Your task to perform on an android device: turn notification dots on Image 0: 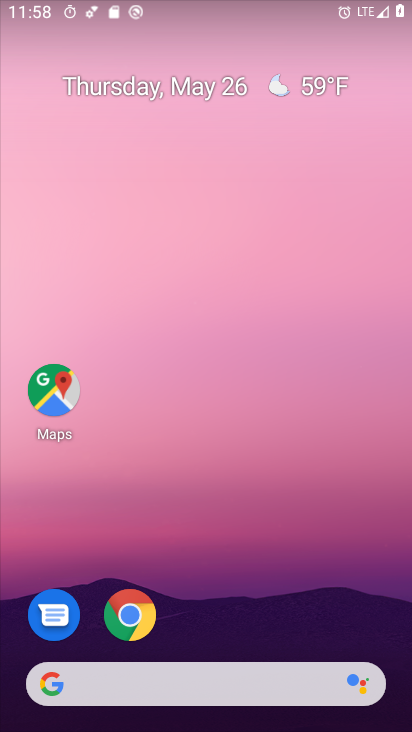
Step 0: drag from (252, 688) to (235, 21)
Your task to perform on an android device: turn notification dots on Image 1: 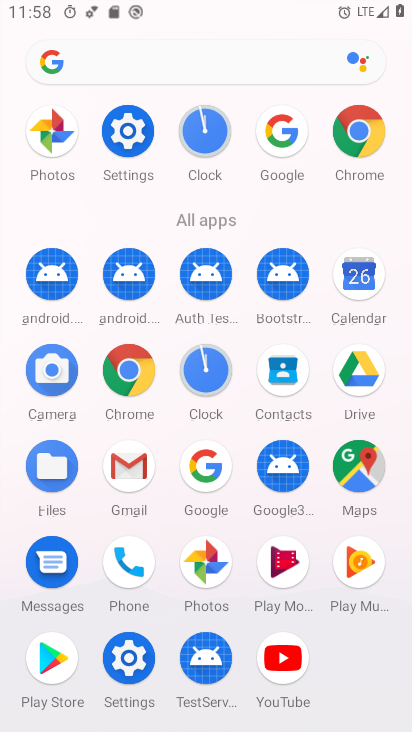
Step 1: click (118, 133)
Your task to perform on an android device: turn notification dots on Image 2: 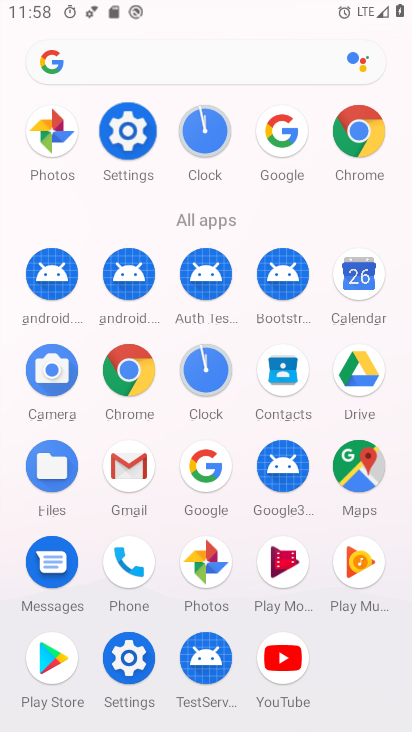
Step 2: click (121, 131)
Your task to perform on an android device: turn notification dots on Image 3: 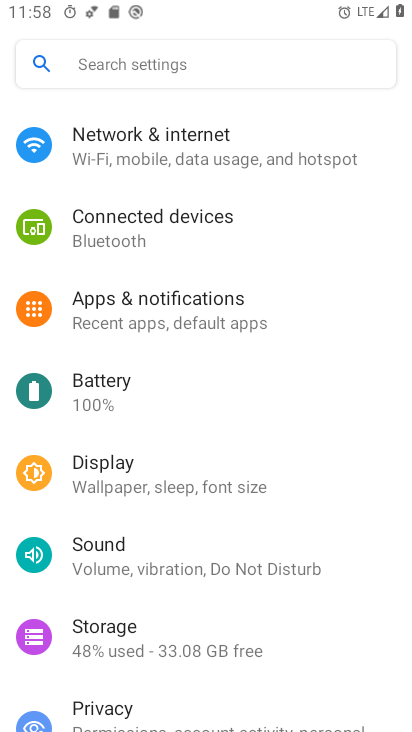
Step 3: click (122, 131)
Your task to perform on an android device: turn notification dots on Image 4: 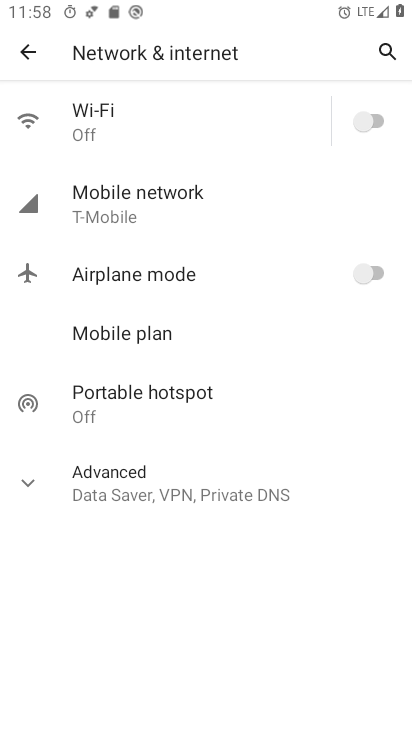
Step 4: click (24, 50)
Your task to perform on an android device: turn notification dots on Image 5: 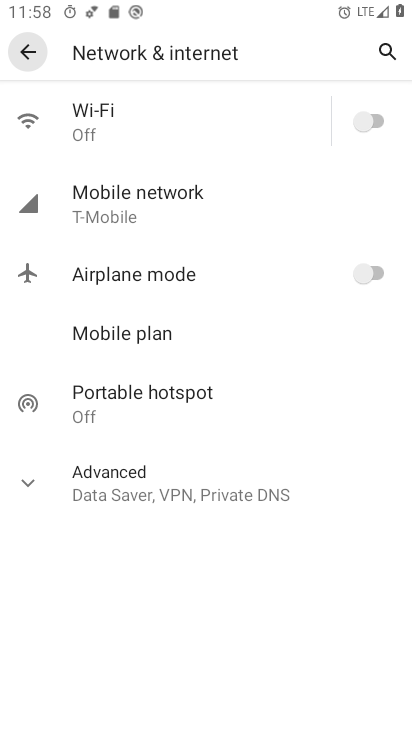
Step 5: click (24, 50)
Your task to perform on an android device: turn notification dots on Image 6: 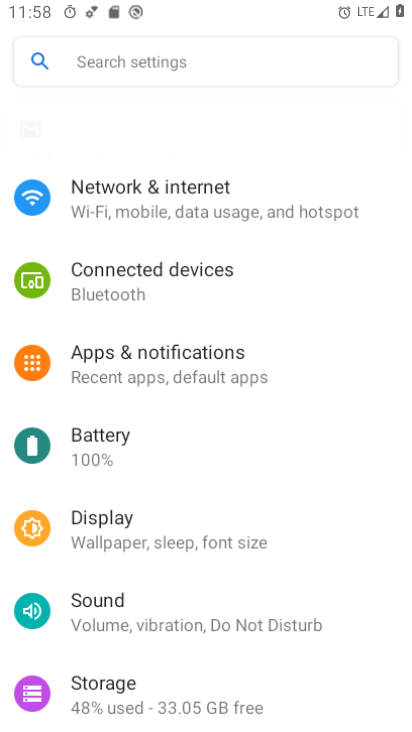
Step 6: click (26, 50)
Your task to perform on an android device: turn notification dots on Image 7: 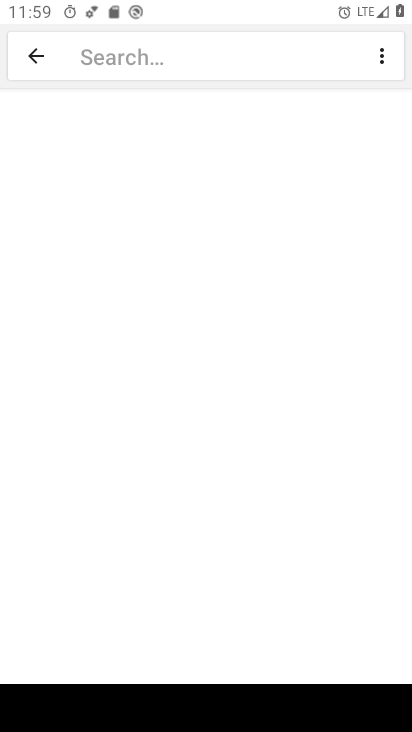
Step 7: click (113, 439)
Your task to perform on an android device: turn notification dots on Image 8: 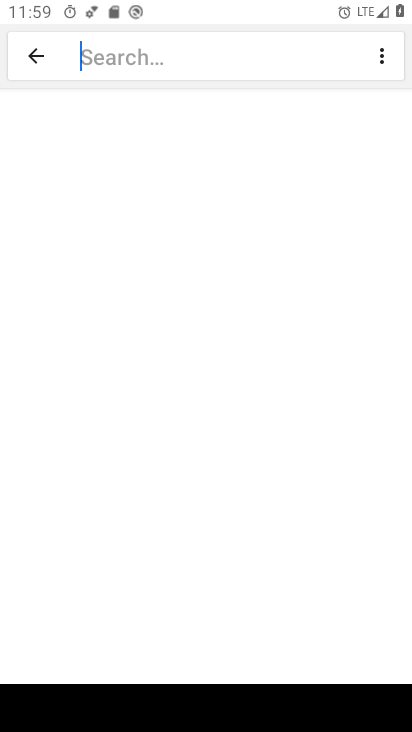
Step 8: click (113, 439)
Your task to perform on an android device: turn notification dots on Image 9: 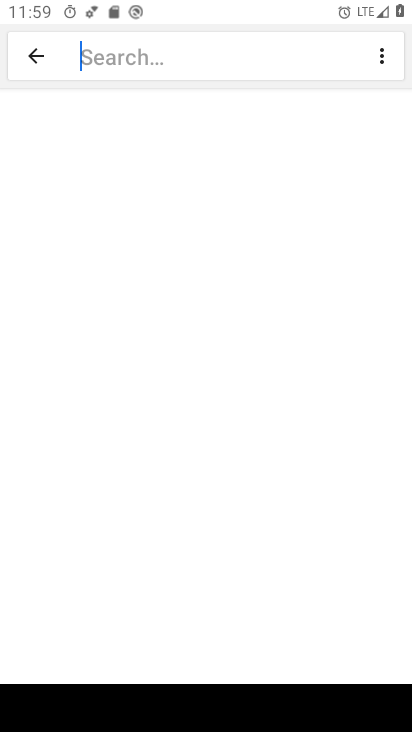
Step 9: click (113, 439)
Your task to perform on an android device: turn notification dots on Image 10: 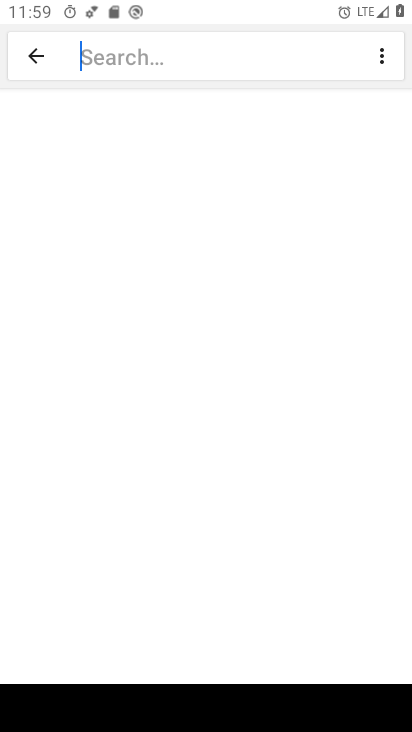
Step 10: click (113, 439)
Your task to perform on an android device: turn notification dots on Image 11: 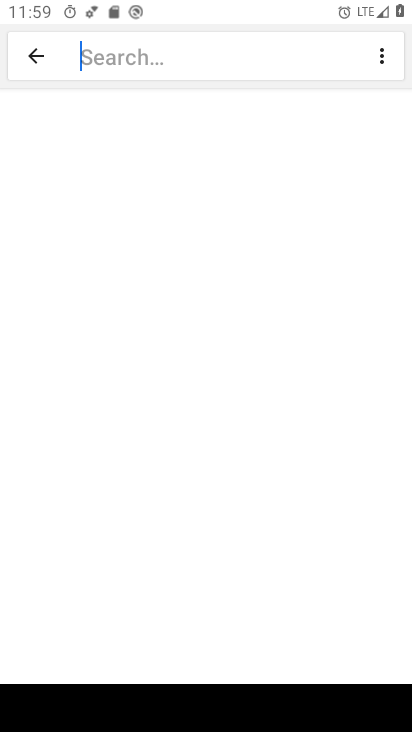
Step 11: click (35, 55)
Your task to perform on an android device: turn notification dots on Image 12: 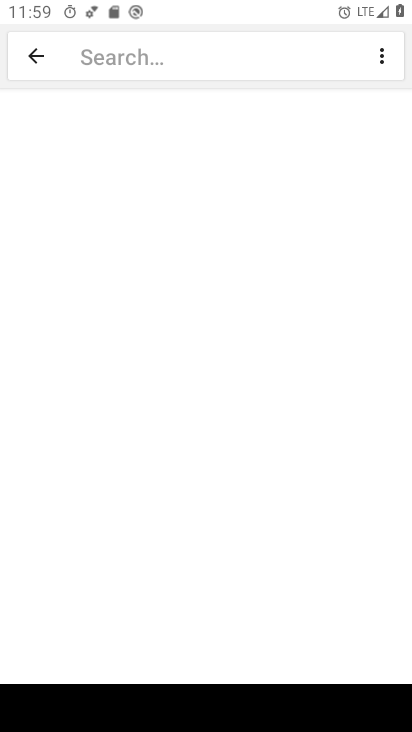
Step 12: click (35, 55)
Your task to perform on an android device: turn notification dots on Image 13: 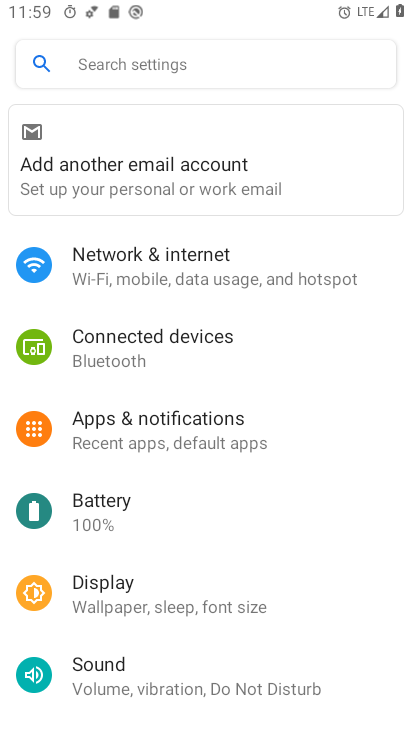
Step 13: drag from (214, 548) to (164, 235)
Your task to perform on an android device: turn notification dots on Image 14: 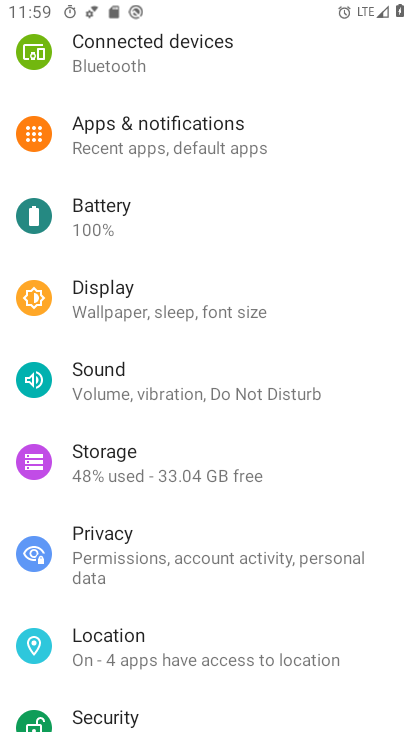
Step 14: drag from (120, 213) to (162, 430)
Your task to perform on an android device: turn notification dots on Image 15: 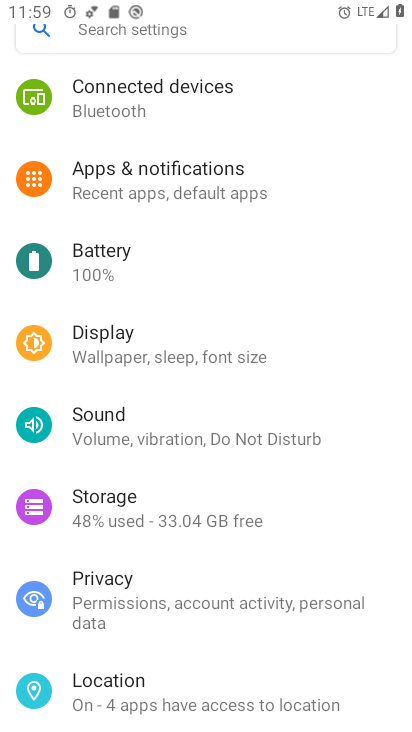
Step 15: click (125, 184)
Your task to perform on an android device: turn notification dots on Image 16: 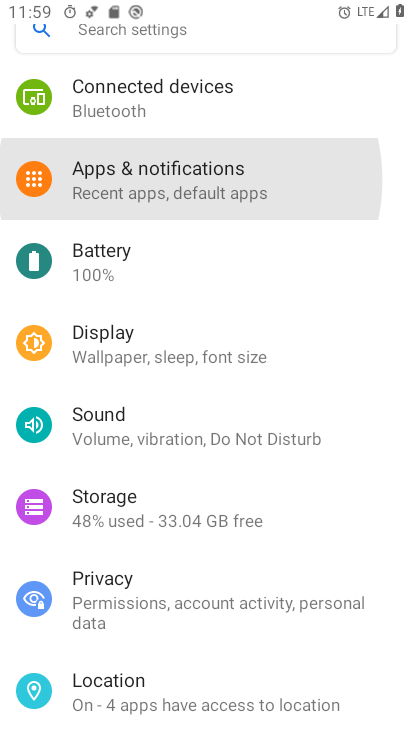
Step 16: click (127, 183)
Your task to perform on an android device: turn notification dots on Image 17: 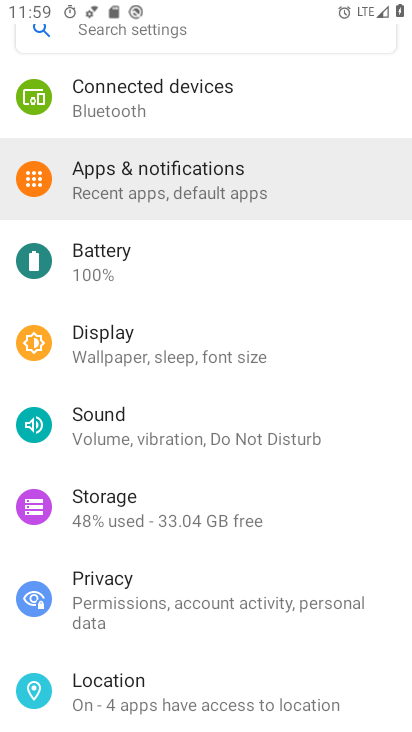
Step 17: click (128, 183)
Your task to perform on an android device: turn notification dots on Image 18: 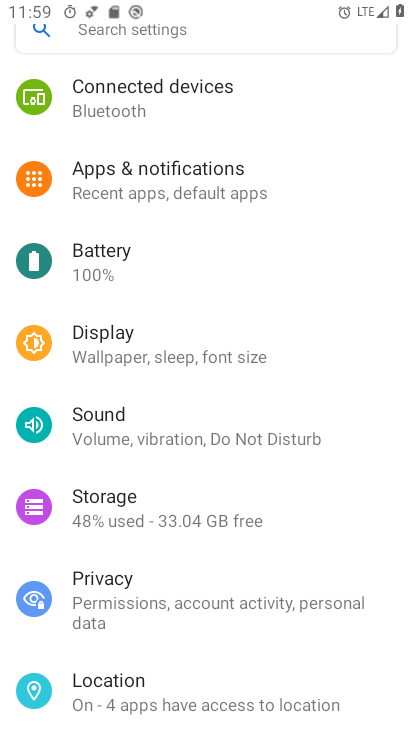
Step 18: click (130, 182)
Your task to perform on an android device: turn notification dots on Image 19: 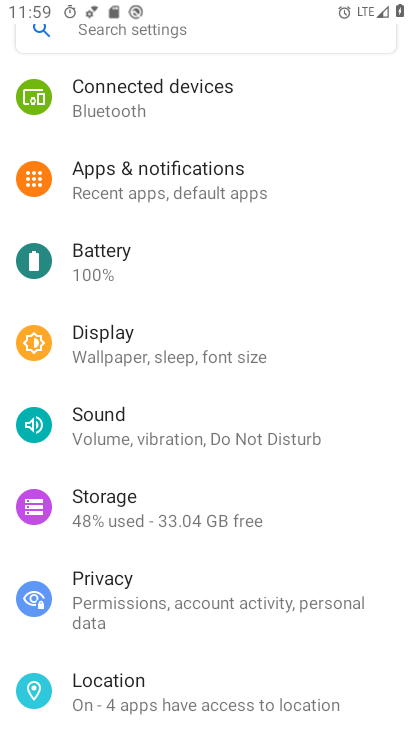
Step 19: click (129, 181)
Your task to perform on an android device: turn notification dots on Image 20: 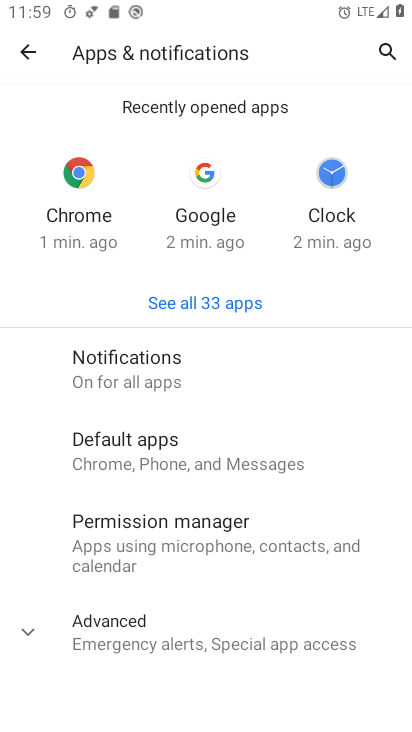
Step 20: click (128, 368)
Your task to perform on an android device: turn notification dots on Image 21: 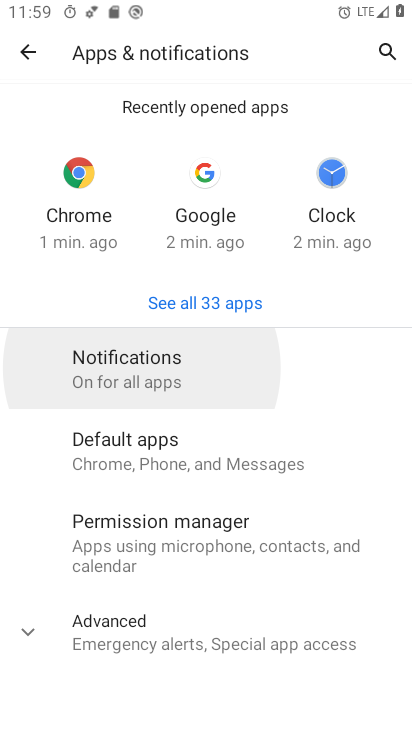
Step 21: click (127, 369)
Your task to perform on an android device: turn notification dots on Image 22: 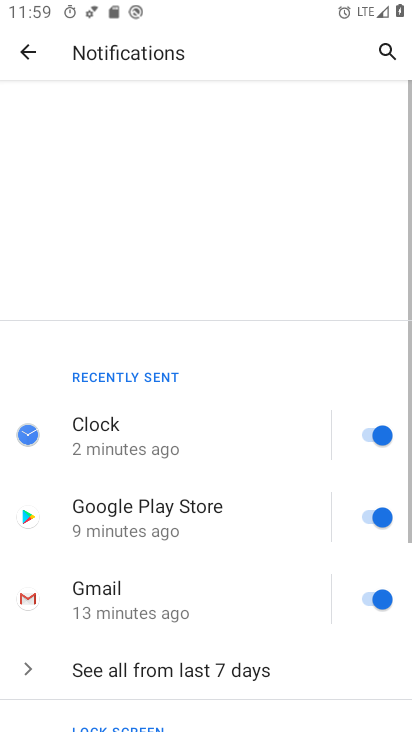
Step 22: click (126, 369)
Your task to perform on an android device: turn notification dots on Image 23: 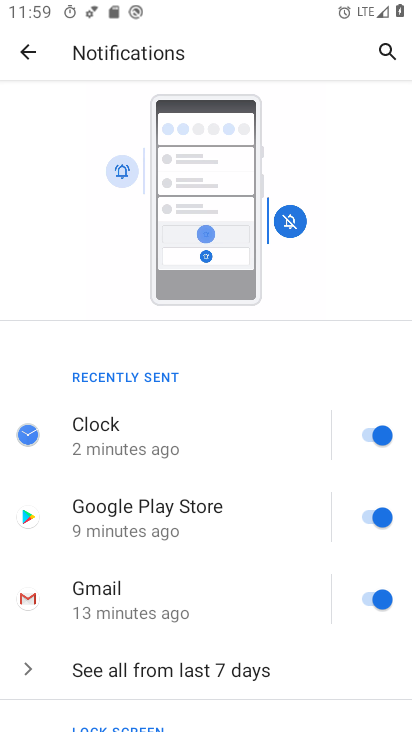
Step 23: drag from (164, 507) to (124, 129)
Your task to perform on an android device: turn notification dots on Image 24: 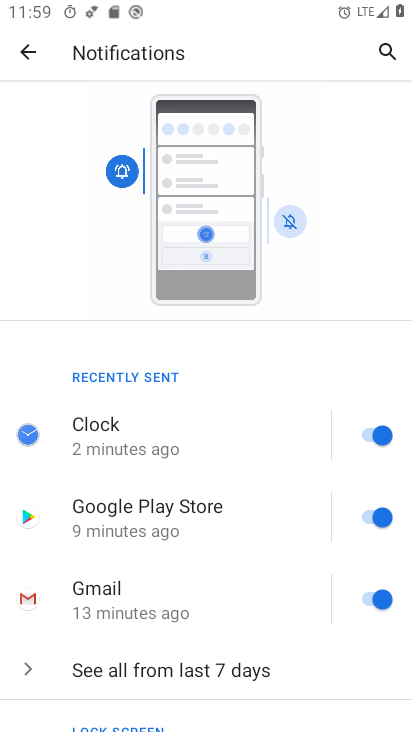
Step 24: drag from (243, 456) to (186, 64)
Your task to perform on an android device: turn notification dots on Image 25: 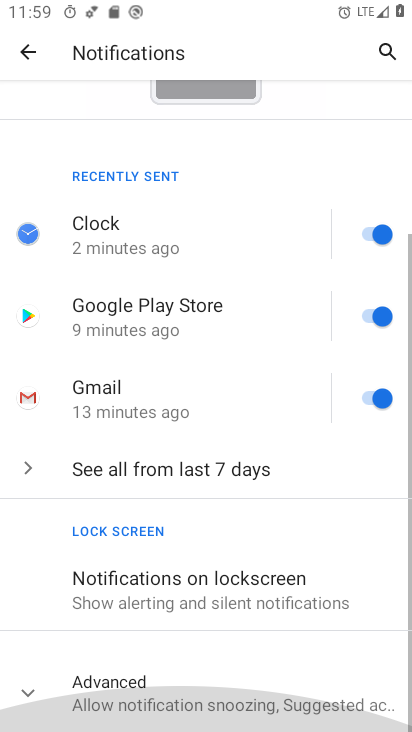
Step 25: drag from (182, 436) to (151, 117)
Your task to perform on an android device: turn notification dots on Image 26: 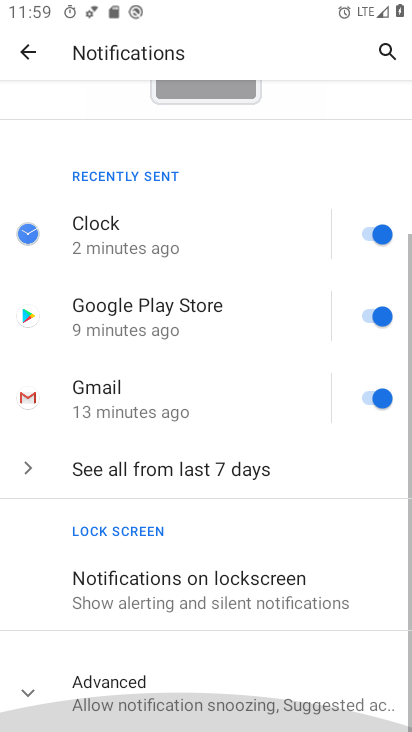
Step 26: drag from (141, 453) to (129, 62)
Your task to perform on an android device: turn notification dots on Image 27: 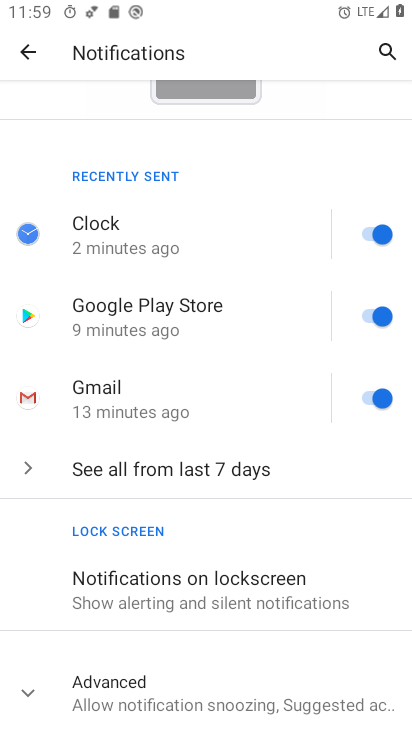
Step 27: click (108, 700)
Your task to perform on an android device: turn notification dots on Image 28: 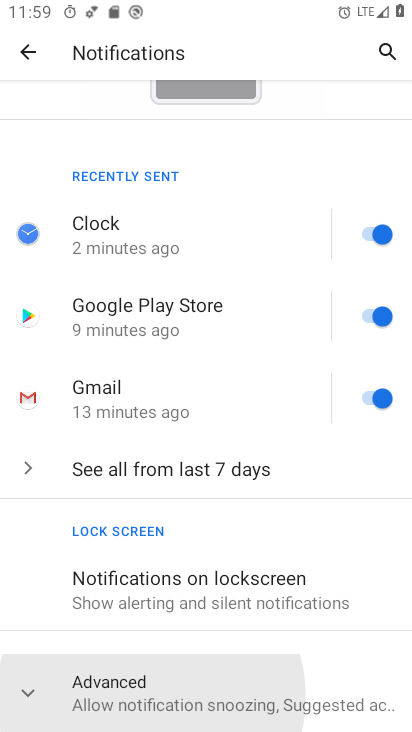
Step 28: click (110, 693)
Your task to perform on an android device: turn notification dots on Image 29: 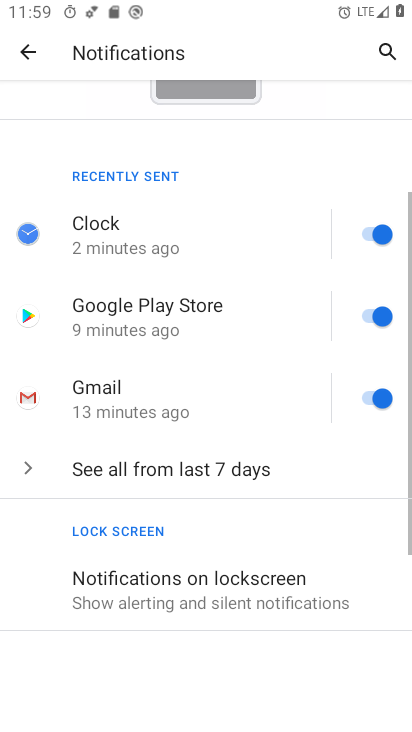
Step 29: click (110, 693)
Your task to perform on an android device: turn notification dots on Image 30: 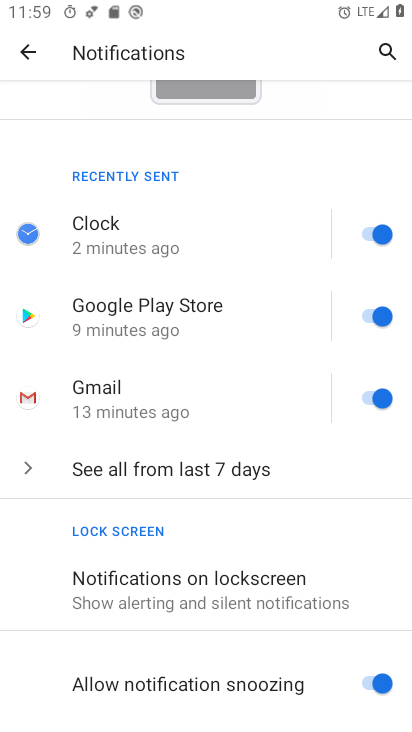
Step 30: drag from (206, 674) to (117, 167)
Your task to perform on an android device: turn notification dots on Image 31: 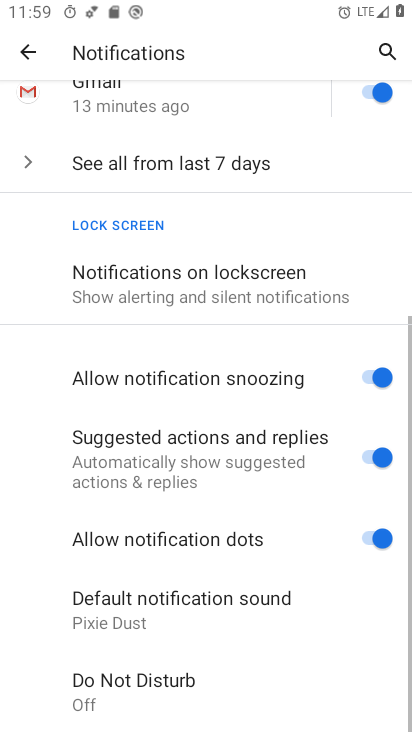
Step 31: drag from (227, 567) to (189, 206)
Your task to perform on an android device: turn notification dots on Image 32: 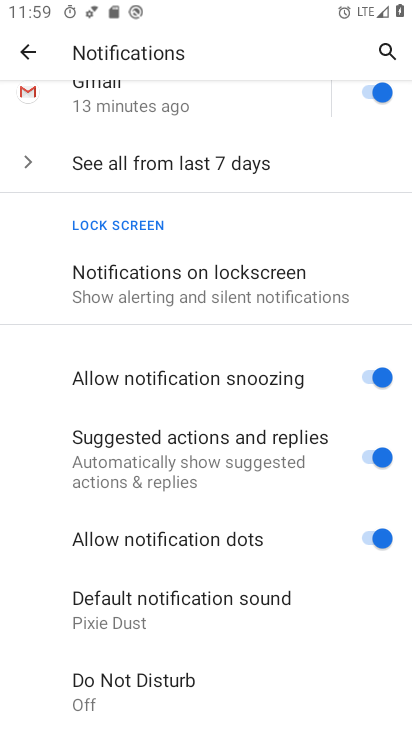
Step 32: click (393, 536)
Your task to perform on an android device: turn notification dots on Image 33: 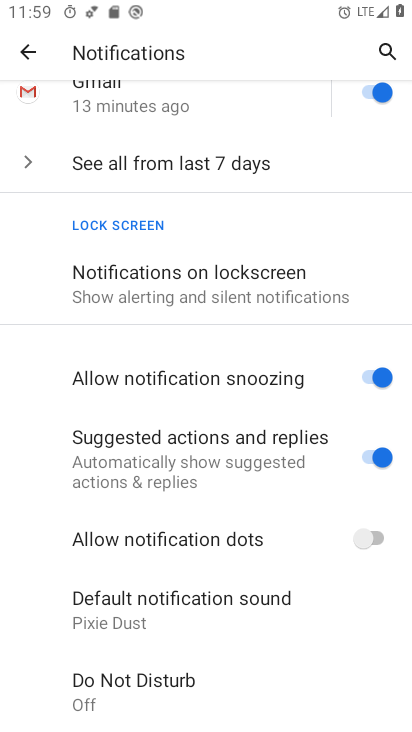
Step 33: task complete